Your task to perform on an android device: Go to Reddit.com Image 0: 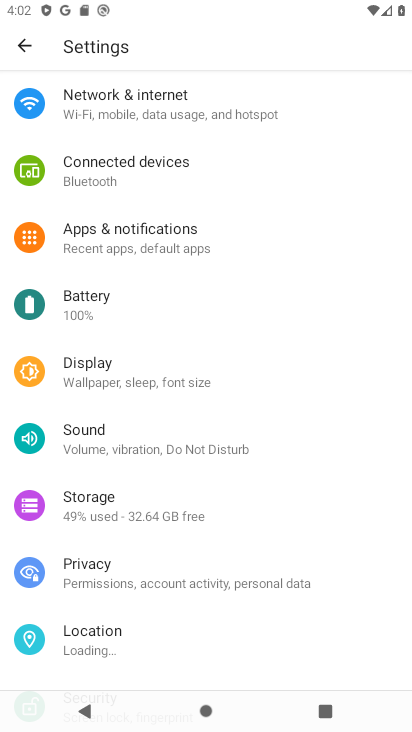
Step 0: press home button
Your task to perform on an android device: Go to Reddit.com Image 1: 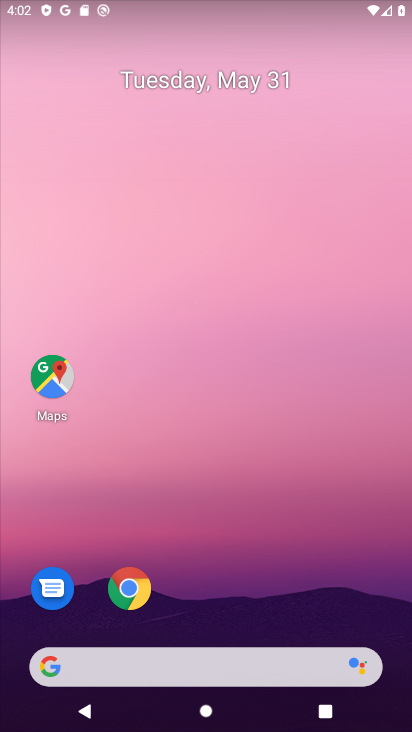
Step 1: click (116, 668)
Your task to perform on an android device: Go to Reddit.com Image 2: 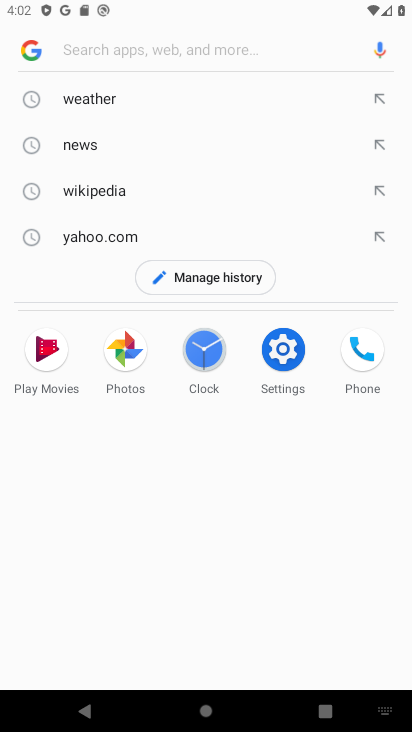
Step 2: type "reddit"
Your task to perform on an android device: Go to Reddit.com Image 3: 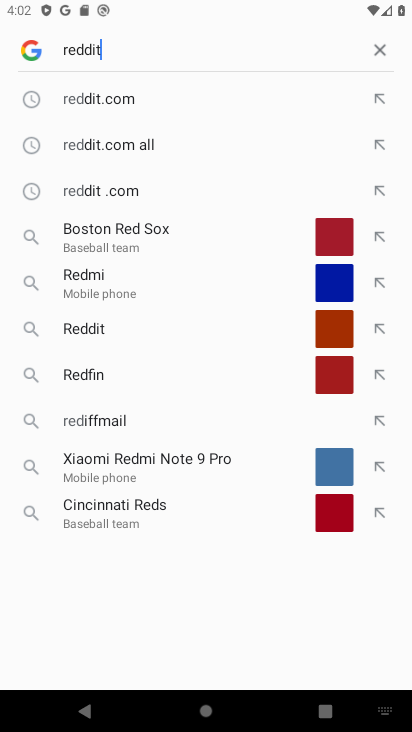
Step 3: type ""
Your task to perform on an android device: Go to Reddit.com Image 4: 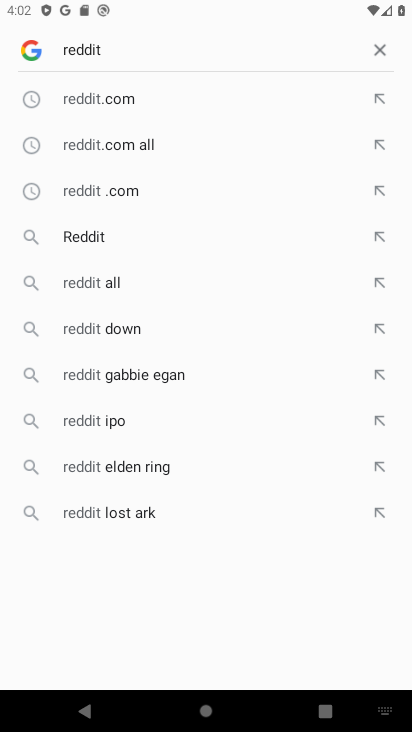
Step 4: click (133, 115)
Your task to perform on an android device: Go to Reddit.com Image 5: 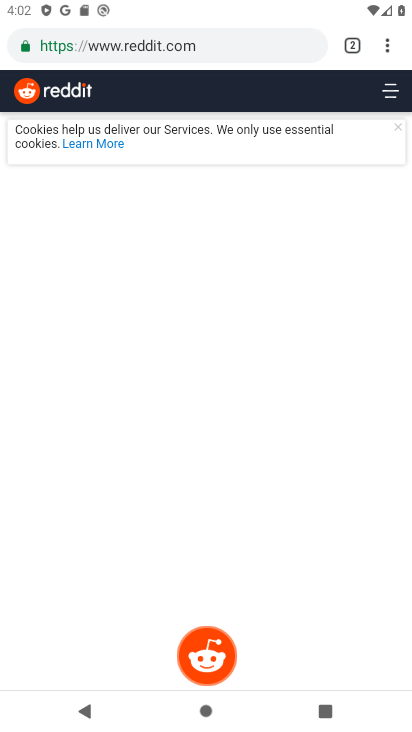
Step 5: task complete